Your task to perform on an android device: Open display settings Image 0: 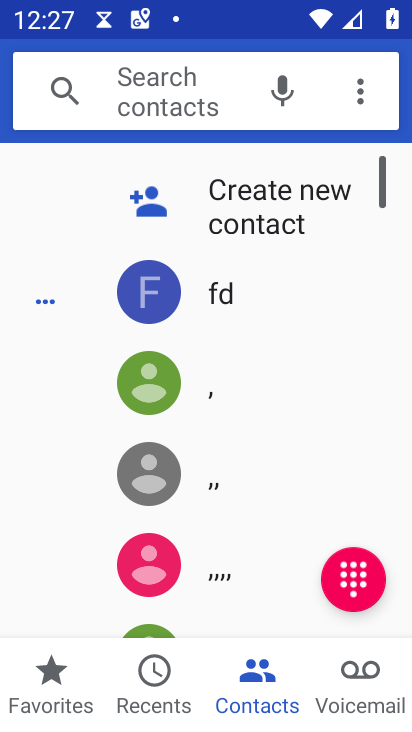
Step 0: press home button
Your task to perform on an android device: Open display settings Image 1: 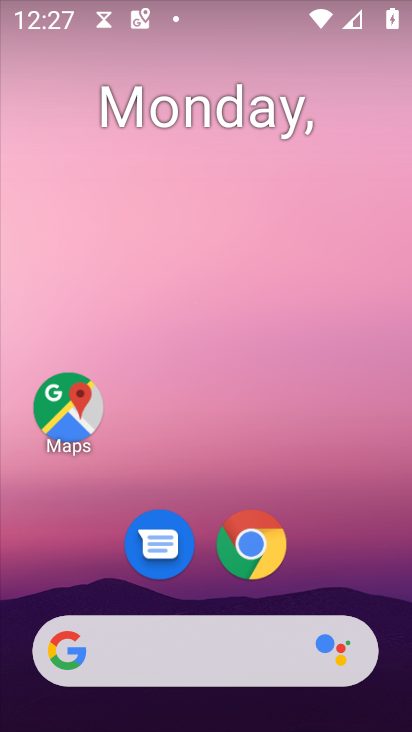
Step 1: drag from (328, 540) to (355, 71)
Your task to perform on an android device: Open display settings Image 2: 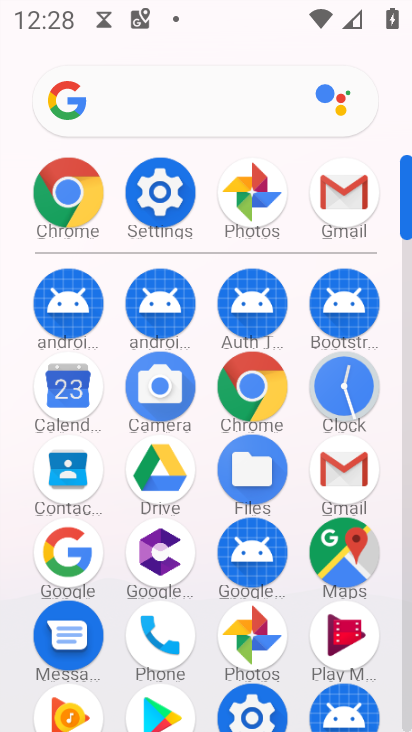
Step 2: click (163, 185)
Your task to perform on an android device: Open display settings Image 3: 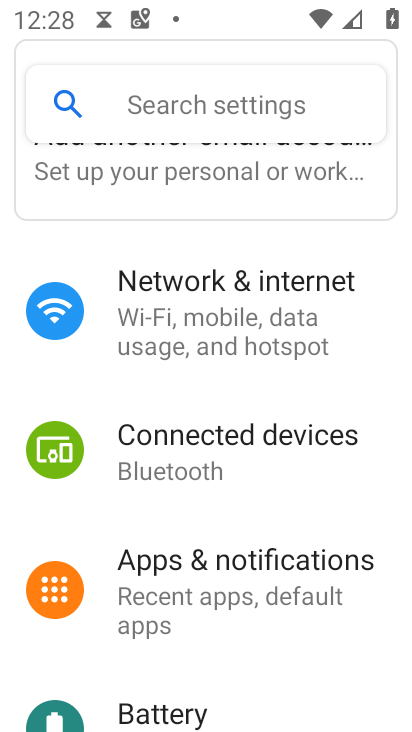
Step 3: drag from (278, 684) to (283, 266)
Your task to perform on an android device: Open display settings Image 4: 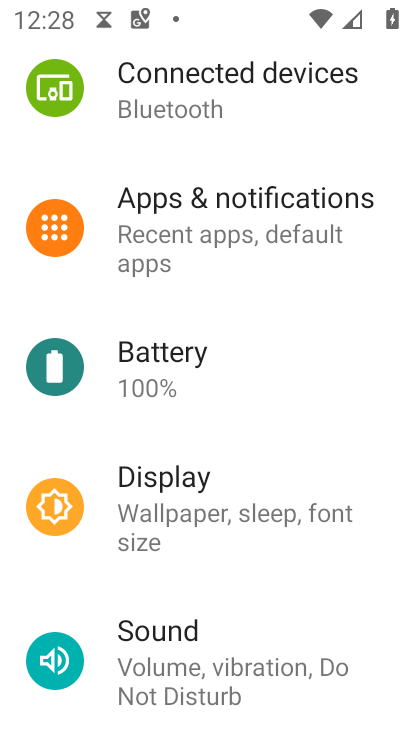
Step 4: click (185, 492)
Your task to perform on an android device: Open display settings Image 5: 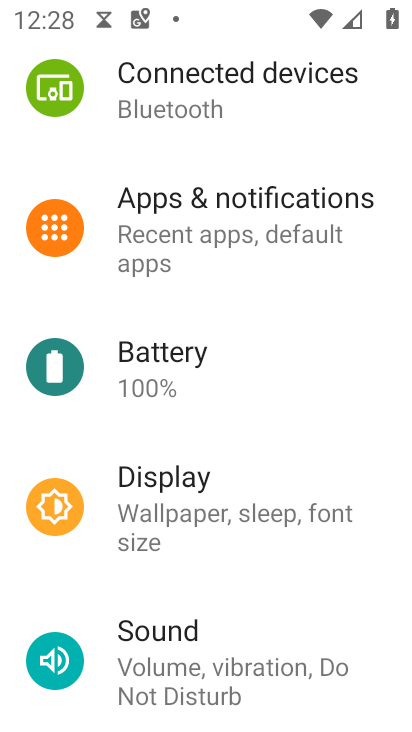
Step 5: click (173, 478)
Your task to perform on an android device: Open display settings Image 6: 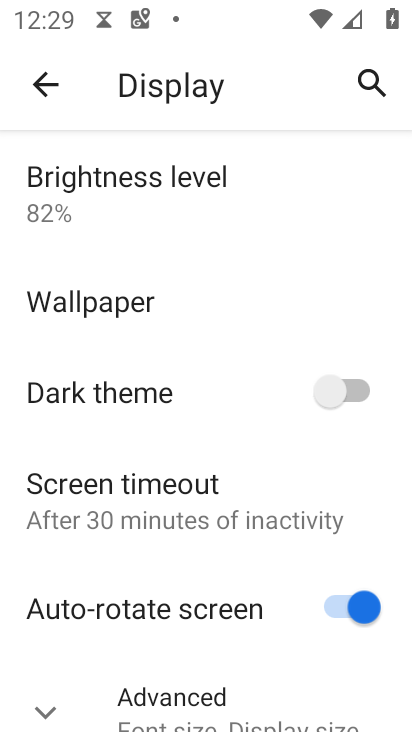
Step 6: task complete